Your task to perform on an android device: remove spam from my inbox in the gmail app Image 0: 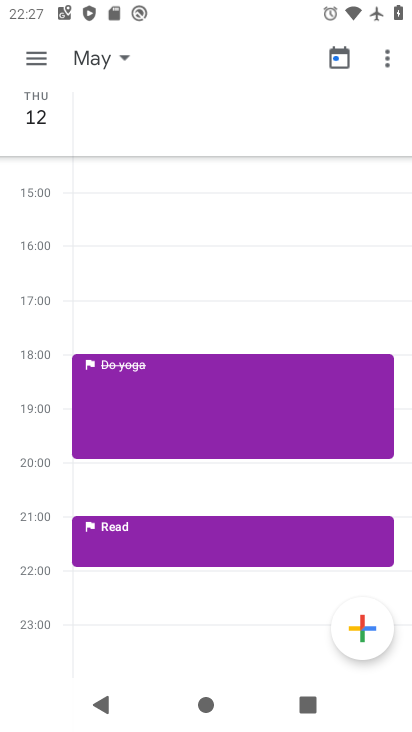
Step 0: press home button
Your task to perform on an android device: remove spam from my inbox in the gmail app Image 1: 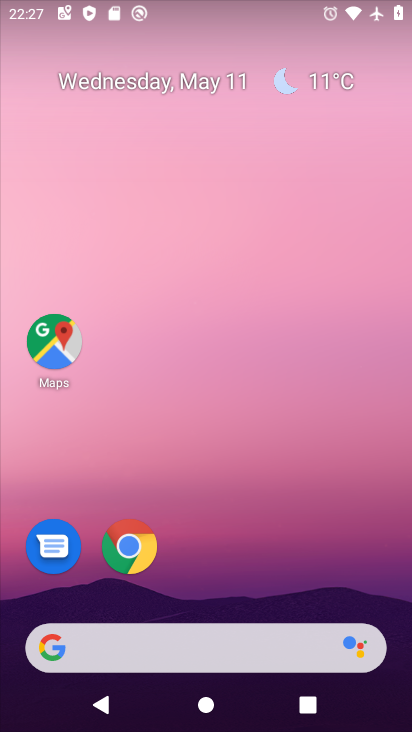
Step 1: drag from (398, 632) to (297, 45)
Your task to perform on an android device: remove spam from my inbox in the gmail app Image 2: 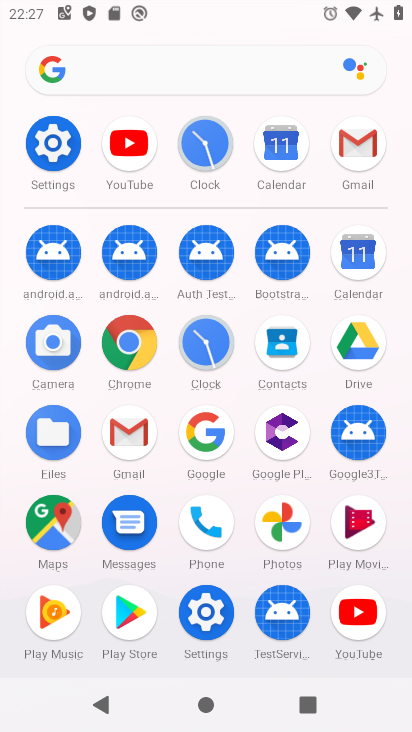
Step 2: click (128, 432)
Your task to perform on an android device: remove spam from my inbox in the gmail app Image 3: 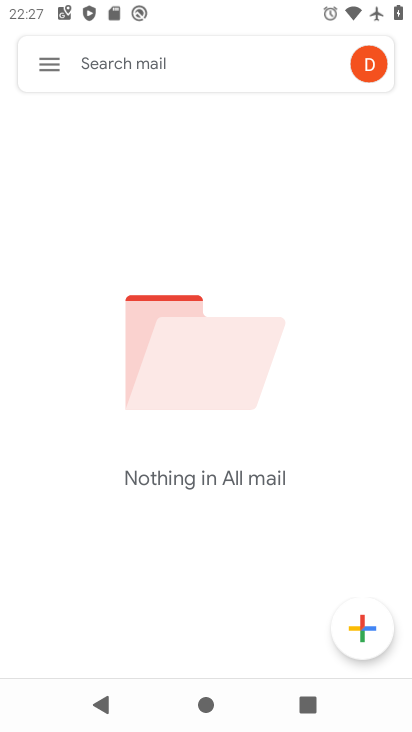
Step 3: click (41, 64)
Your task to perform on an android device: remove spam from my inbox in the gmail app Image 4: 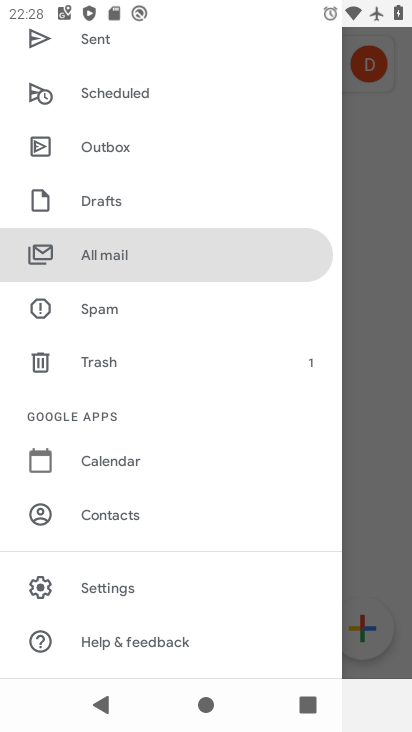
Step 4: click (111, 305)
Your task to perform on an android device: remove spam from my inbox in the gmail app Image 5: 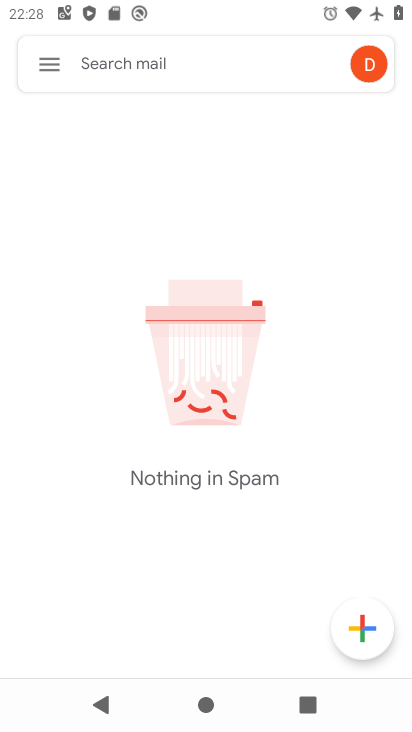
Step 5: task complete